Your task to perform on an android device: Search for vegetarian restaurants on Maps Image 0: 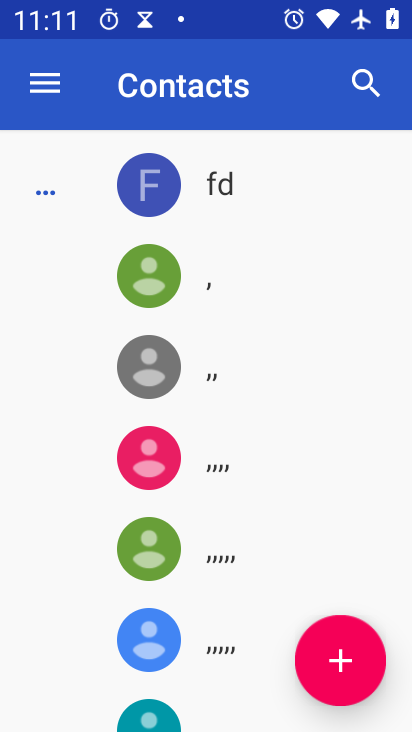
Step 0: press home button
Your task to perform on an android device: Search for vegetarian restaurants on Maps Image 1: 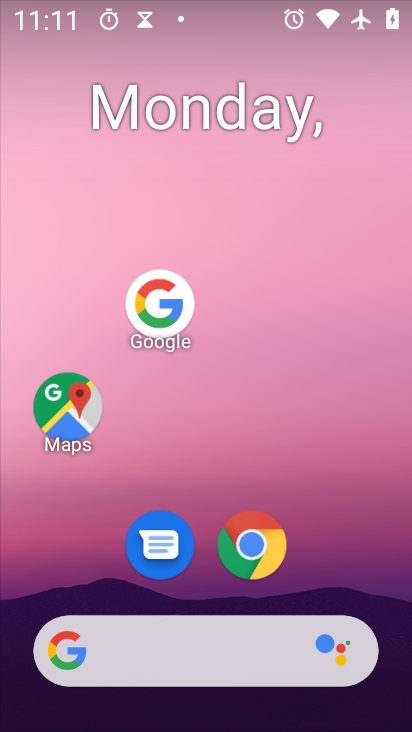
Step 1: click (90, 415)
Your task to perform on an android device: Search for vegetarian restaurants on Maps Image 2: 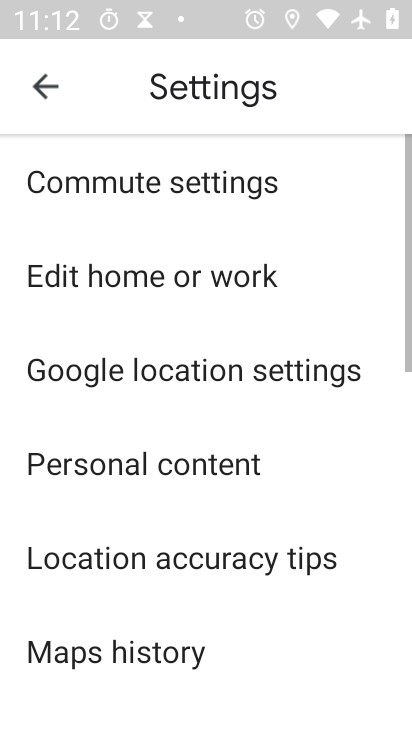
Step 2: click (53, 89)
Your task to perform on an android device: Search for vegetarian restaurants on Maps Image 3: 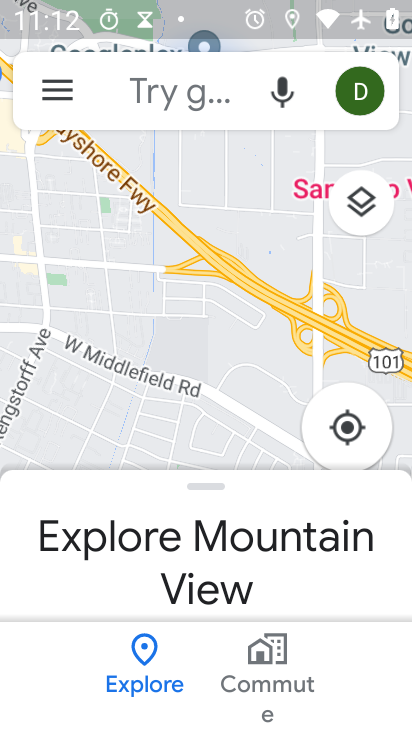
Step 3: click (229, 93)
Your task to perform on an android device: Search for vegetarian restaurants on Maps Image 4: 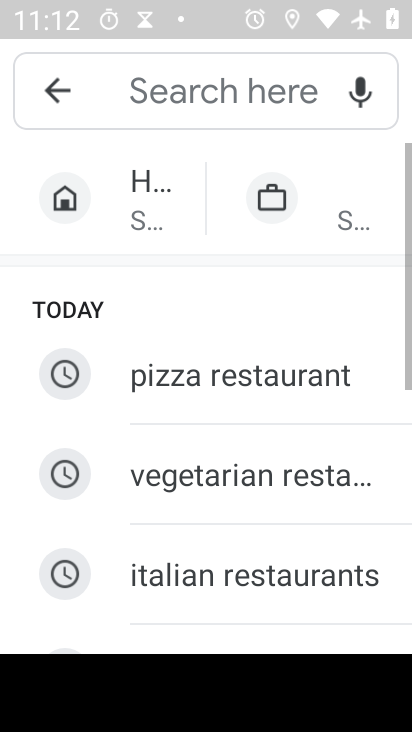
Step 4: click (186, 480)
Your task to perform on an android device: Search for vegetarian restaurants on Maps Image 5: 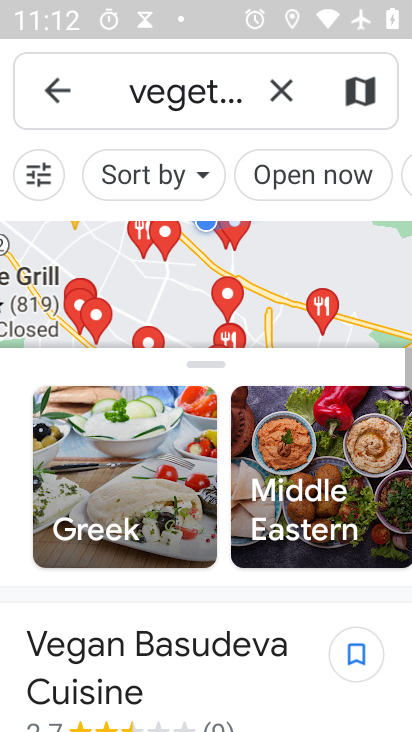
Step 5: task complete